Your task to perform on an android device: Search for pizza restaurants on Maps Image 0: 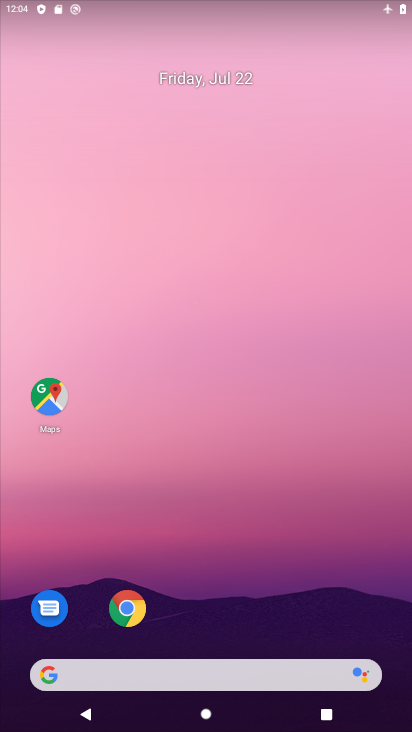
Step 0: click (44, 409)
Your task to perform on an android device: Search for pizza restaurants on Maps Image 1: 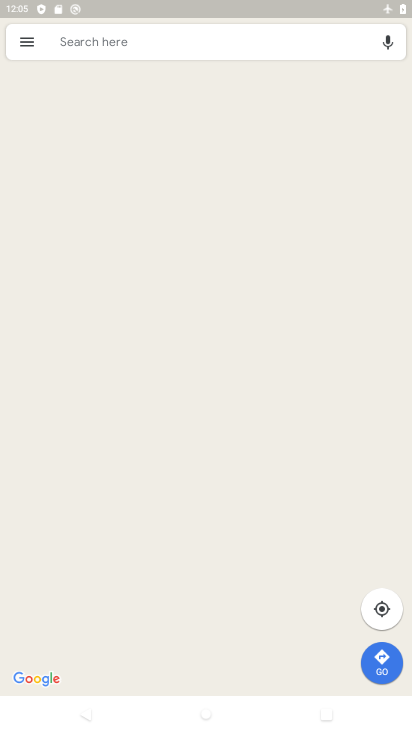
Step 1: click (139, 49)
Your task to perform on an android device: Search for pizza restaurants on Maps Image 2: 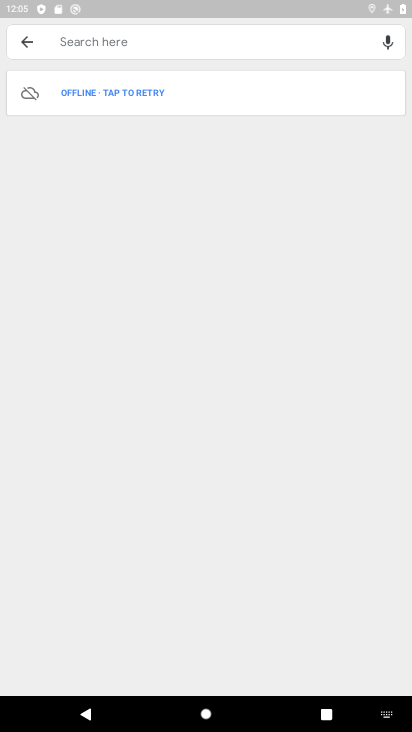
Step 2: press home button
Your task to perform on an android device: Search for pizza restaurants on Maps Image 3: 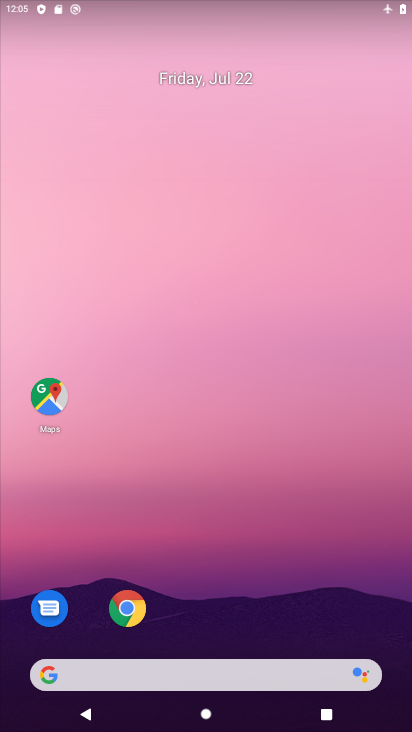
Step 3: click (55, 412)
Your task to perform on an android device: Search for pizza restaurants on Maps Image 4: 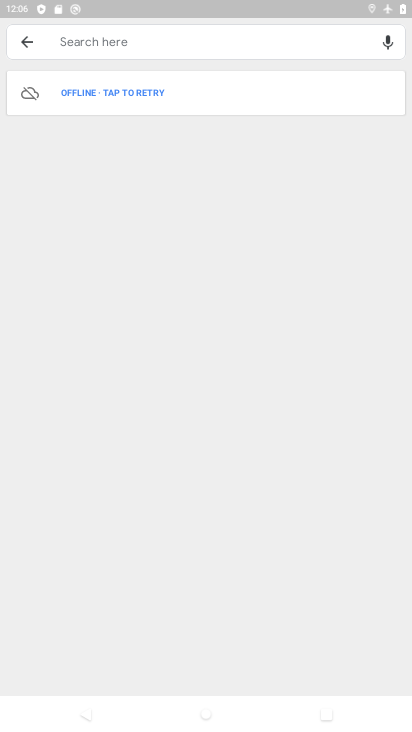
Step 4: press home button
Your task to perform on an android device: Search for pizza restaurants on Maps Image 5: 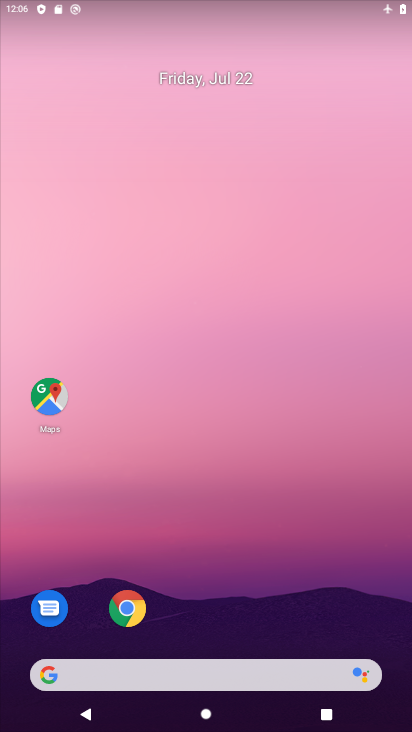
Step 5: click (57, 390)
Your task to perform on an android device: Search for pizza restaurants on Maps Image 6: 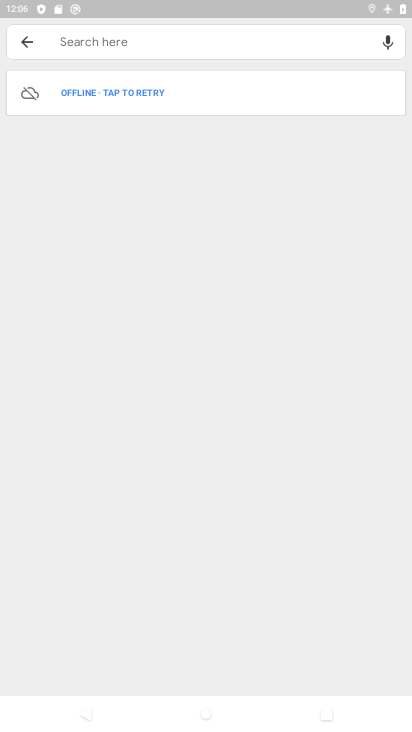
Step 6: click (31, 45)
Your task to perform on an android device: Search for pizza restaurants on Maps Image 7: 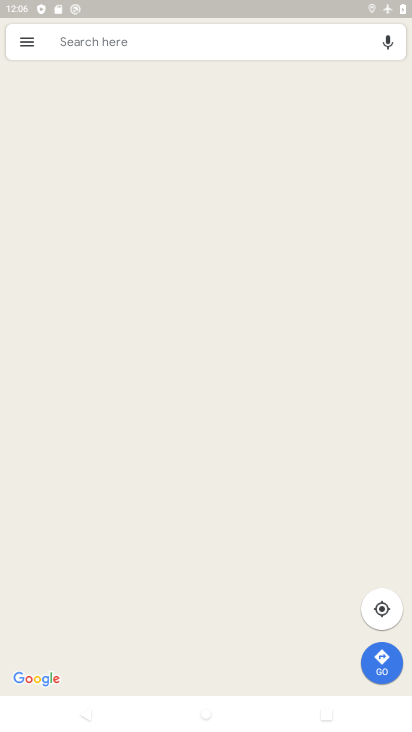
Step 7: click (88, 37)
Your task to perform on an android device: Search for pizza restaurants on Maps Image 8: 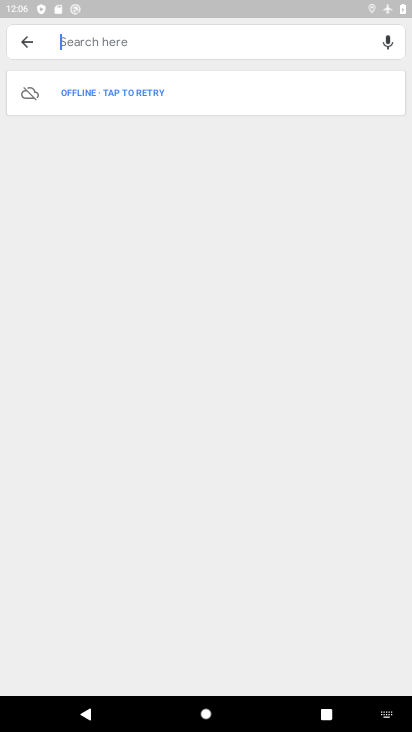
Step 8: drag from (163, 6) to (213, 499)
Your task to perform on an android device: Search for pizza restaurants on Maps Image 9: 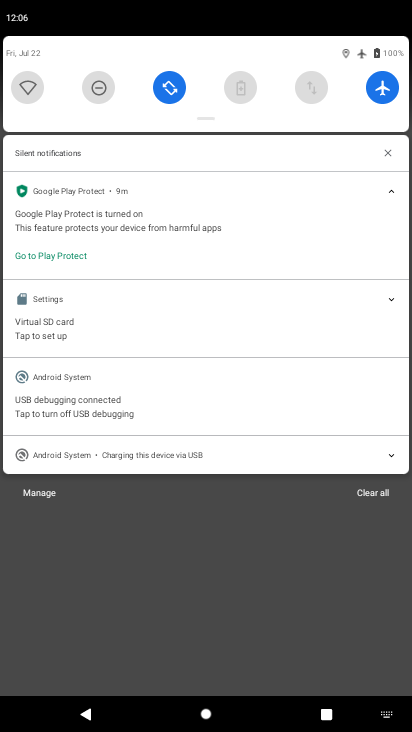
Step 9: click (377, 100)
Your task to perform on an android device: Search for pizza restaurants on Maps Image 10: 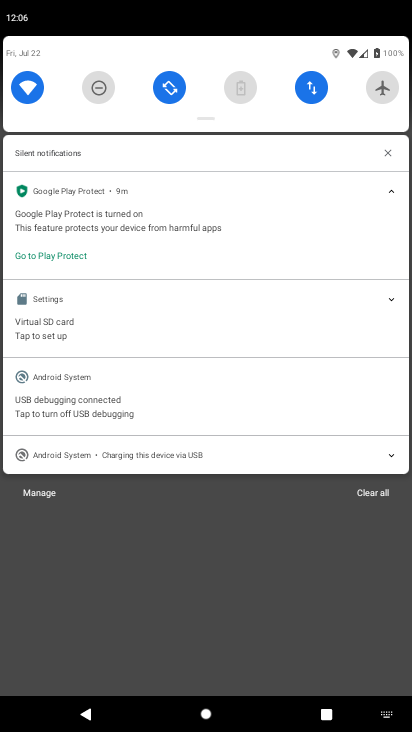
Step 10: task complete